Your task to perform on an android device: Open Google Chrome Image 0: 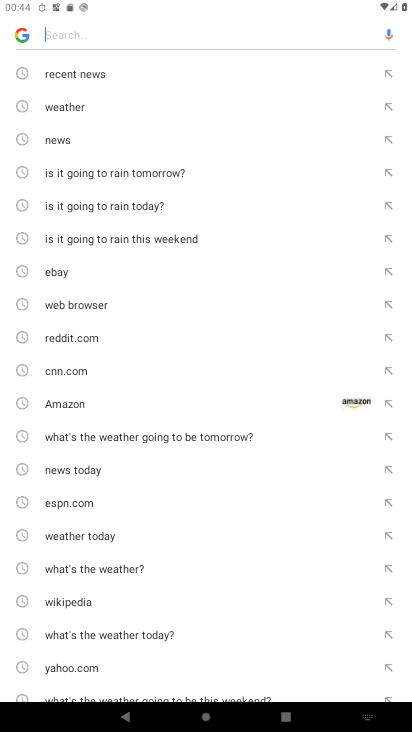
Step 0: press home button
Your task to perform on an android device: Open Google Chrome Image 1: 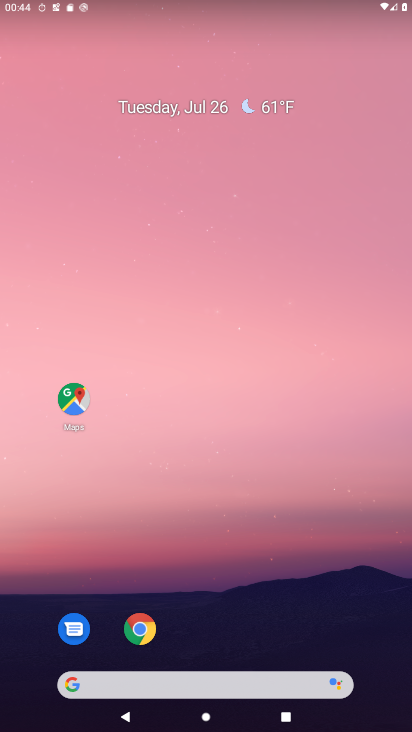
Step 1: click (145, 634)
Your task to perform on an android device: Open Google Chrome Image 2: 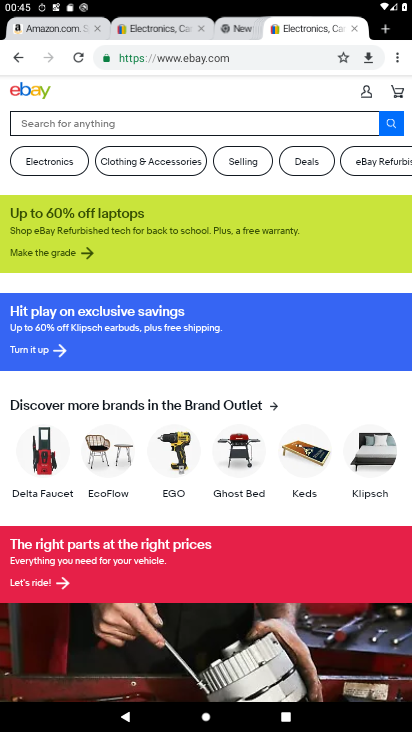
Step 2: task complete